Your task to perform on an android device: Toggle the flashlight Image 0: 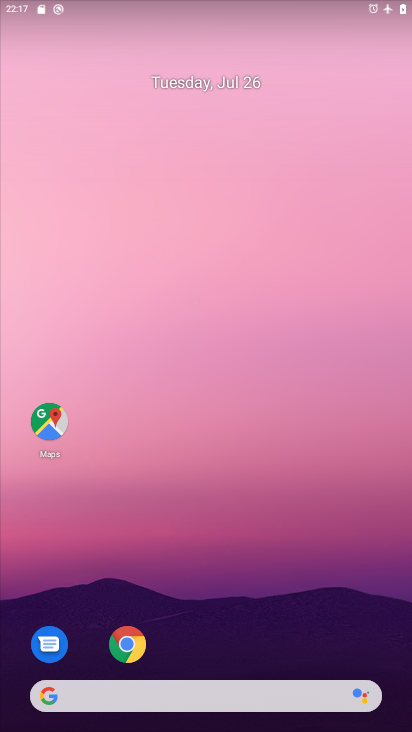
Step 0: drag from (219, 625) to (253, 200)
Your task to perform on an android device: Toggle the flashlight Image 1: 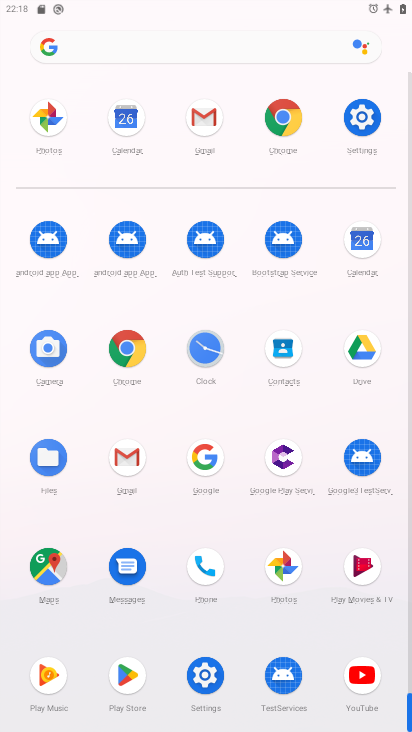
Step 1: click (362, 115)
Your task to perform on an android device: Toggle the flashlight Image 2: 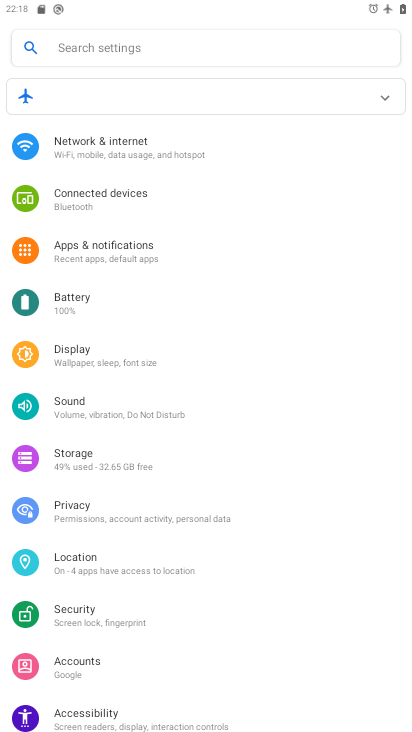
Step 2: task complete